Your task to perform on an android device: Show me popular games on the Play Store Image 0: 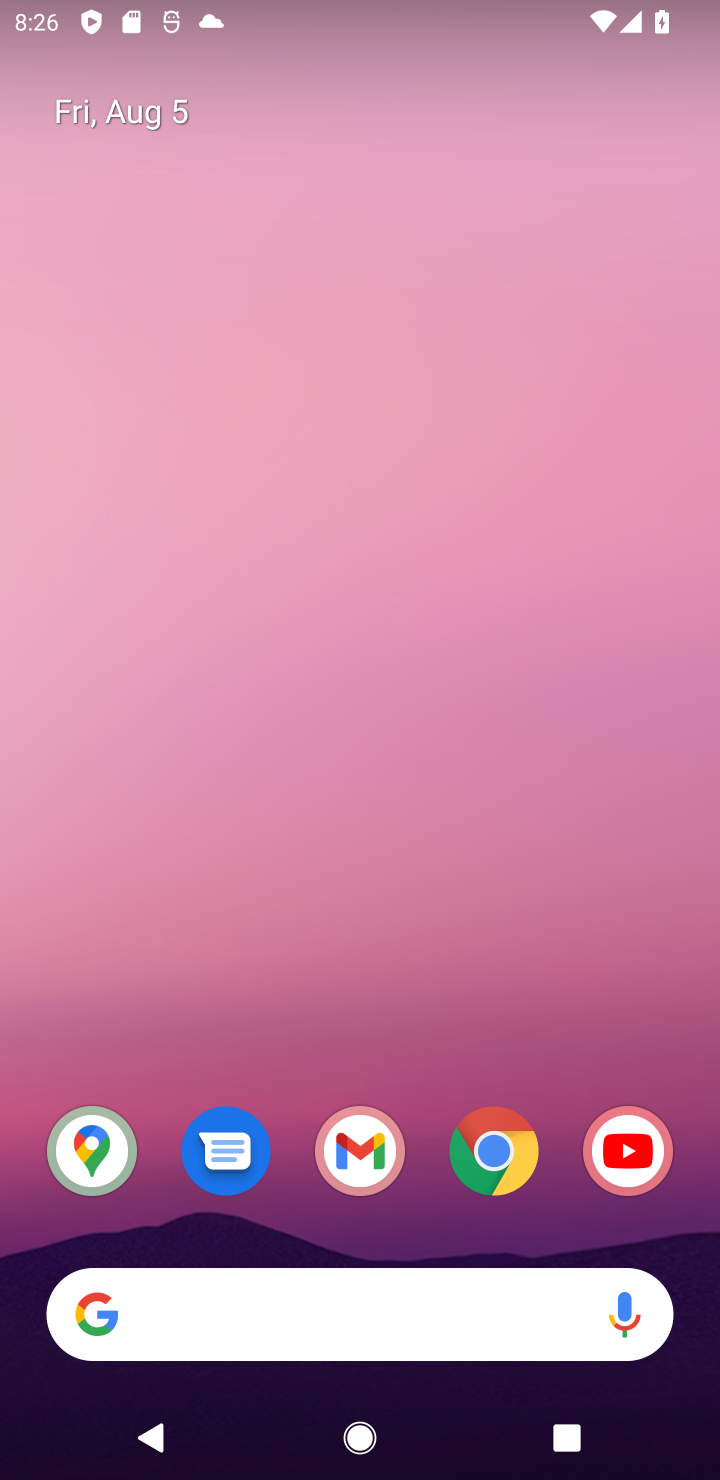
Step 0: drag from (383, 716) to (365, 438)
Your task to perform on an android device: Show me popular games on the Play Store Image 1: 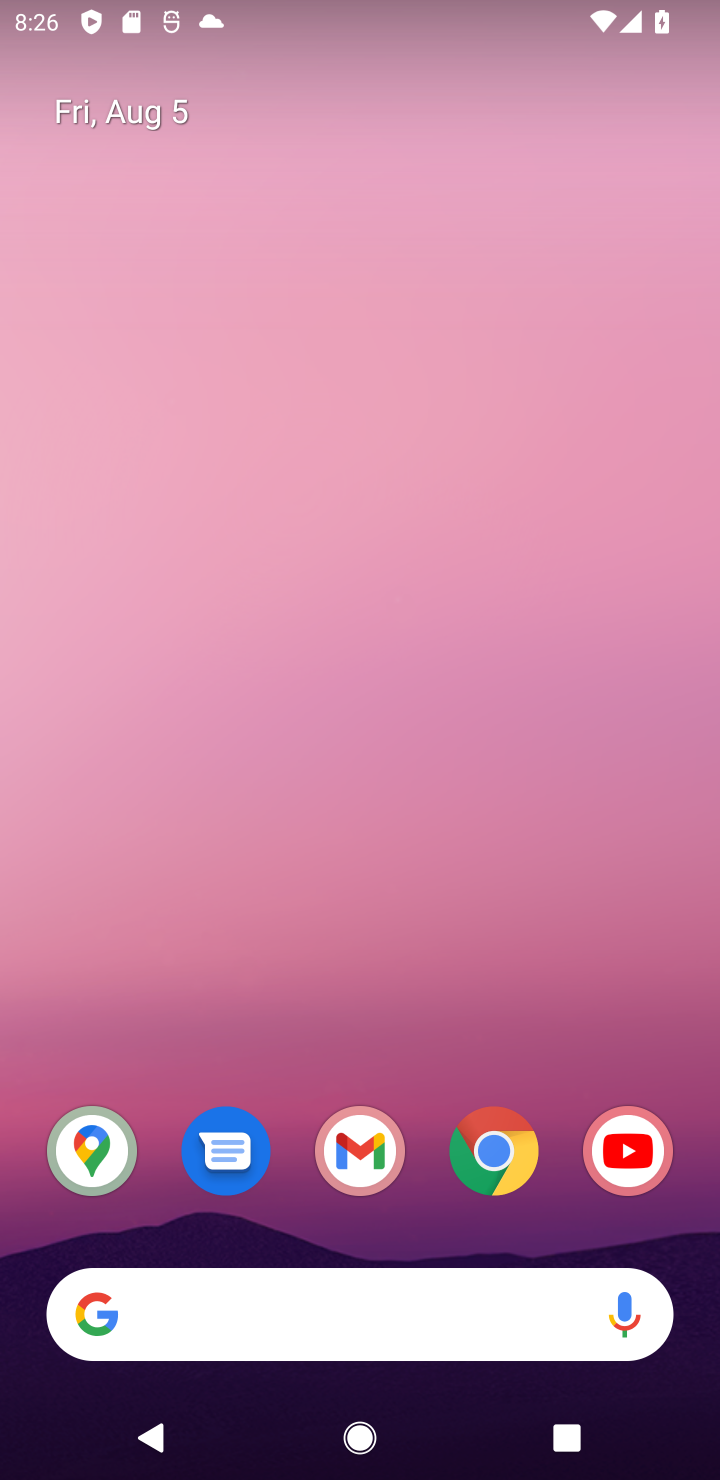
Step 1: click (295, 247)
Your task to perform on an android device: Show me popular games on the Play Store Image 2: 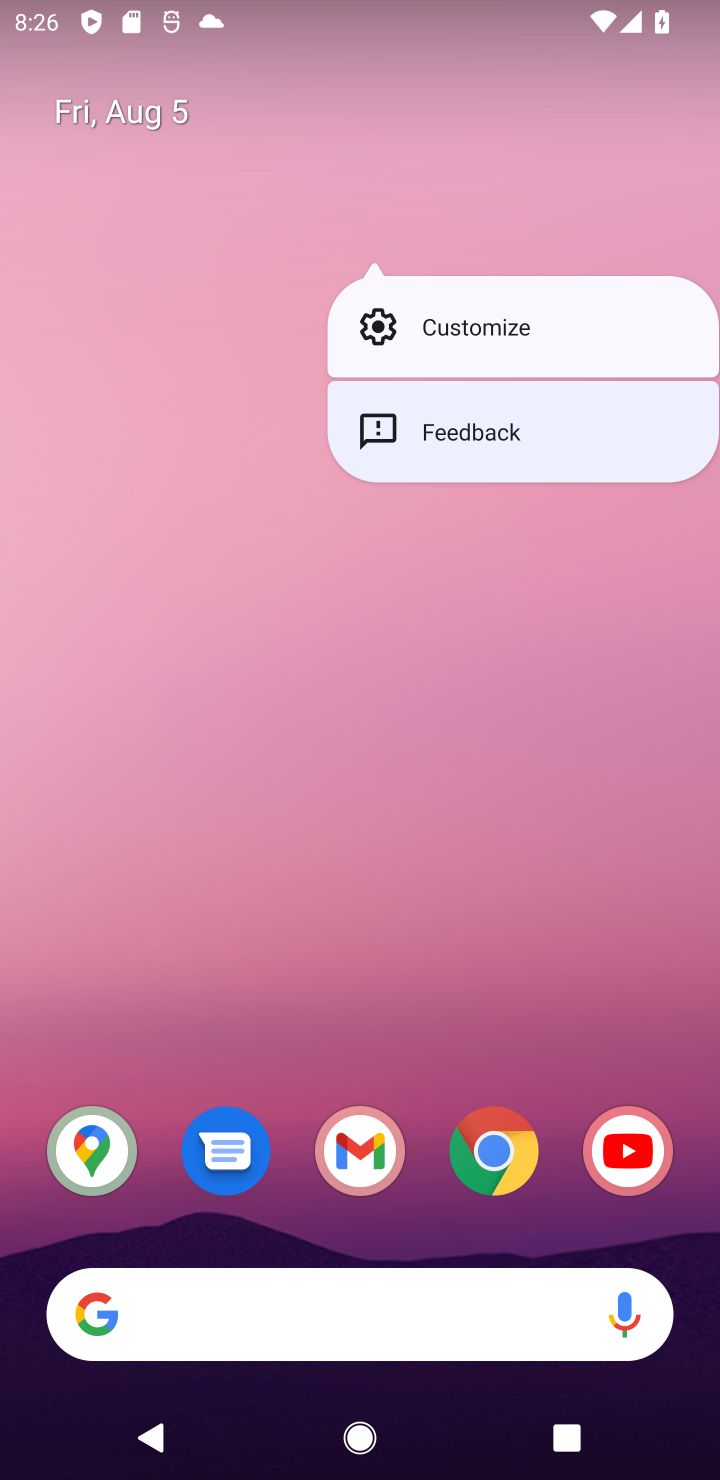
Step 2: click (354, 1200)
Your task to perform on an android device: Show me popular games on the Play Store Image 3: 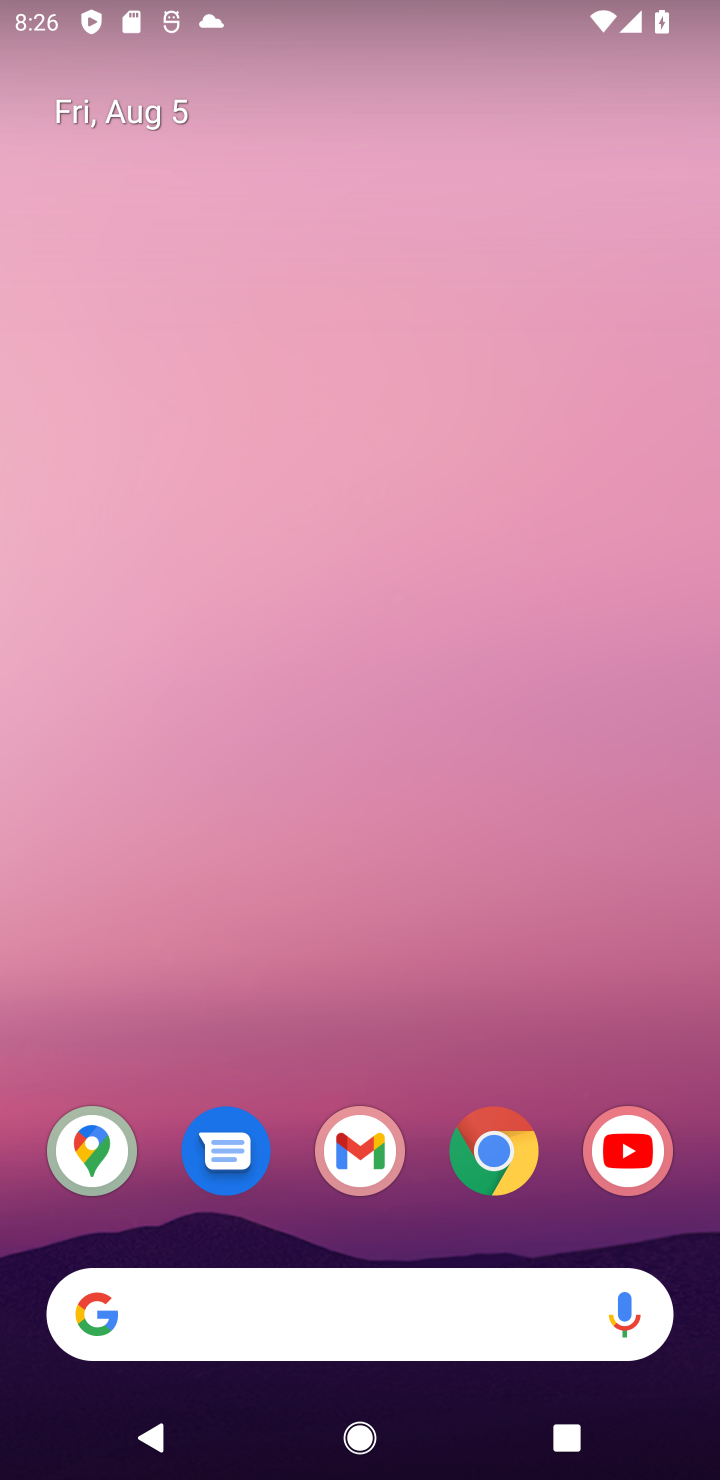
Step 3: drag from (296, 917) to (376, 347)
Your task to perform on an android device: Show me popular games on the Play Store Image 4: 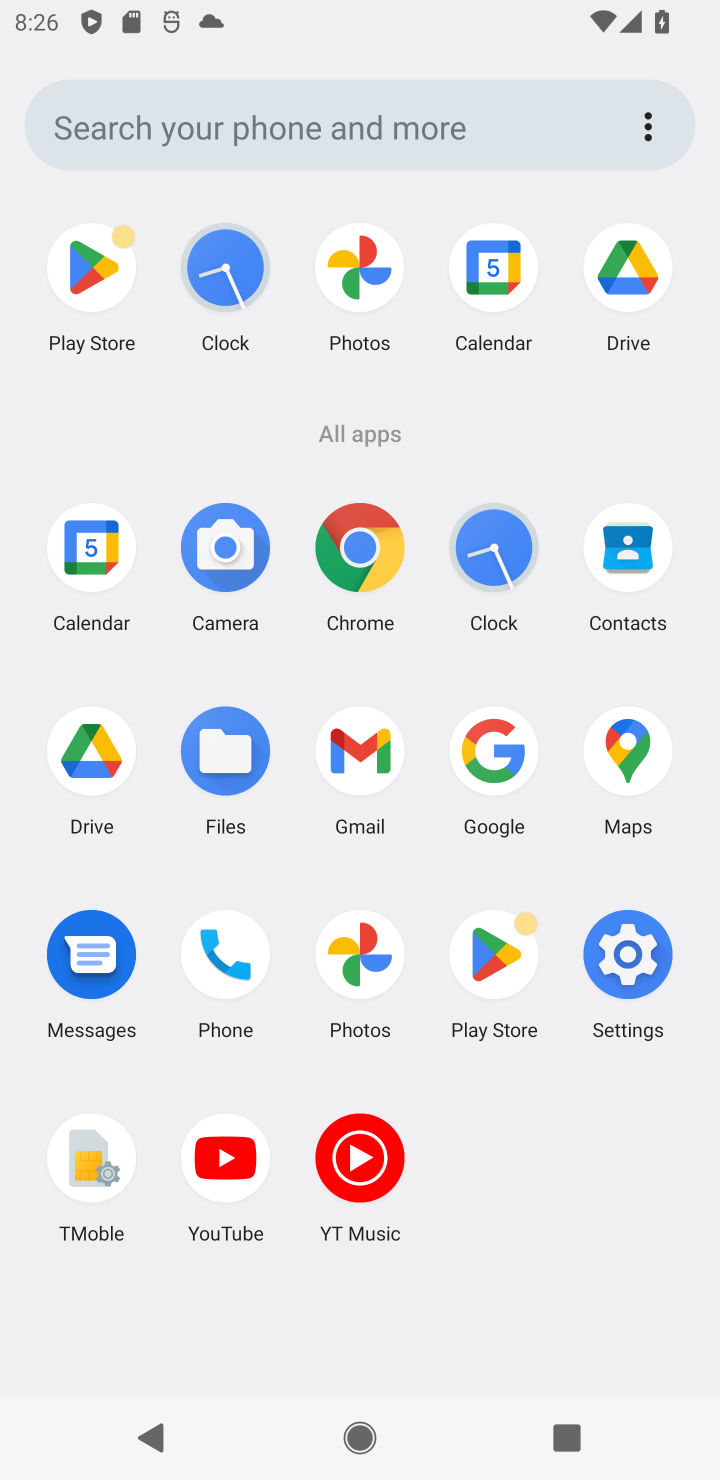
Step 4: click (525, 1002)
Your task to perform on an android device: Show me popular games on the Play Store Image 5: 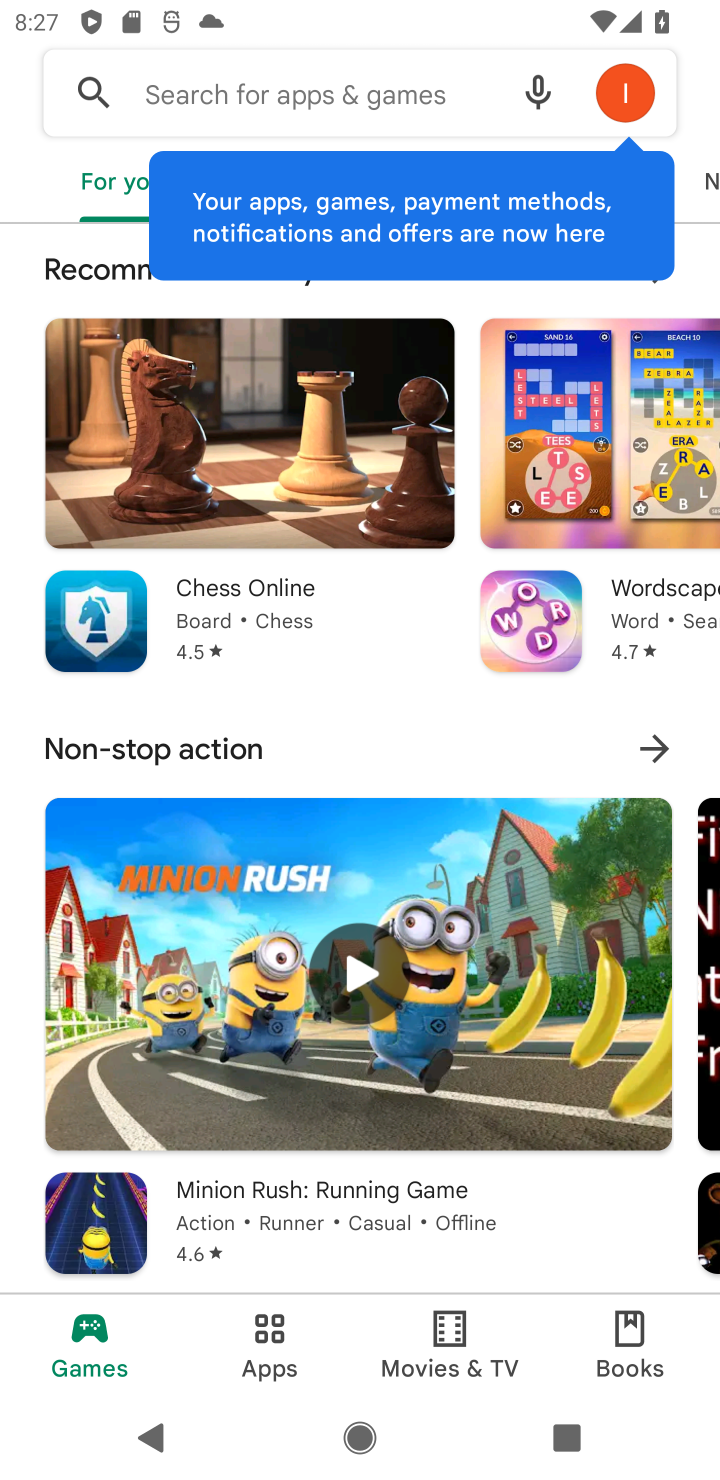
Step 5: task complete